Your task to perform on an android device: turn on priority inbox in the gmail app Image 0: 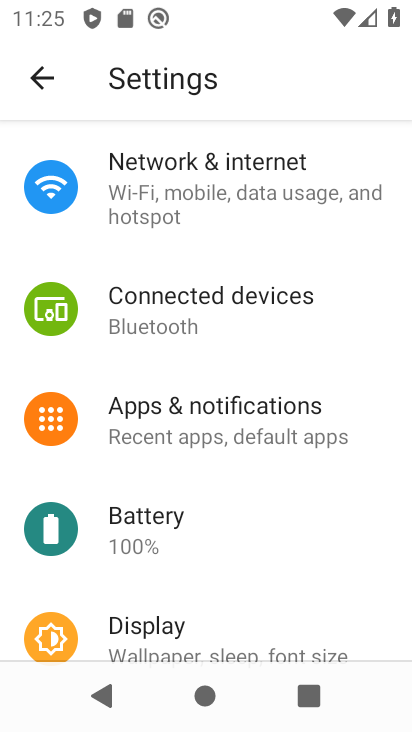
Step 0: press home button
Your task to perform on an android device: turn on priority inbox in the gmail app Image 1: 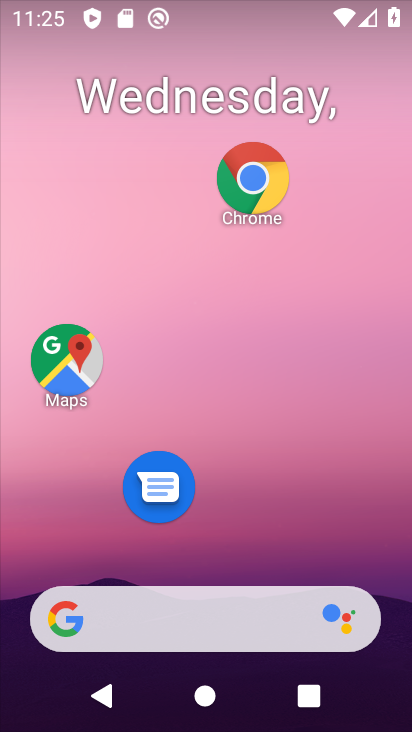
Step 1: drag from (303, 519) to (326, 155)
Your task to perform on an android device: turn on priority inbox in the gmail app Image 2: 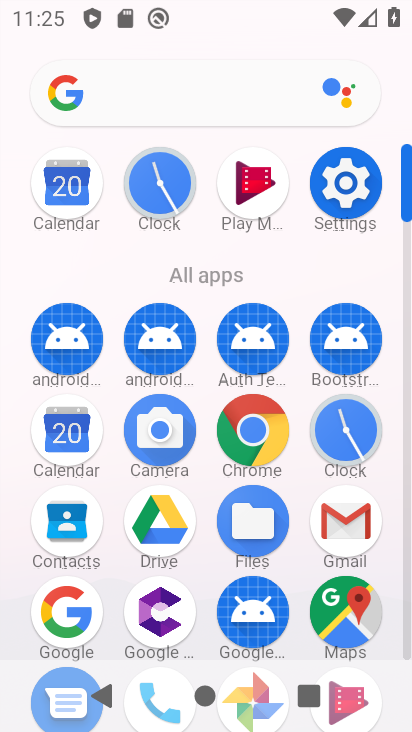
Step 2: click (353, 522)
Your task to perform on an android device: turn on priority inbox in the gmail app Image 3: 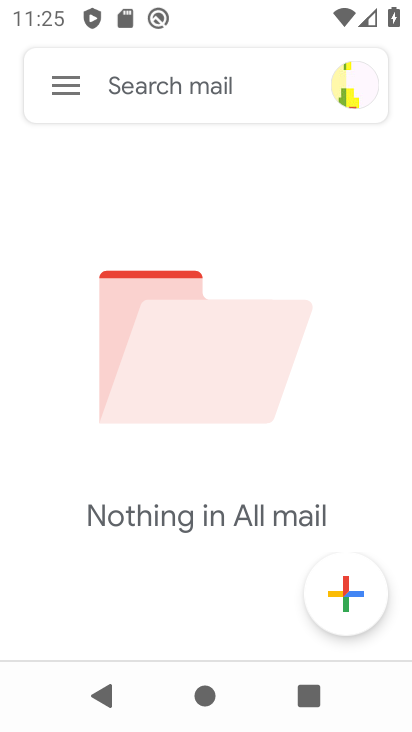
Step 3: click (66, 93)
Your task to perform on an android device: turn on priority inbox in the gmail app Image 4: 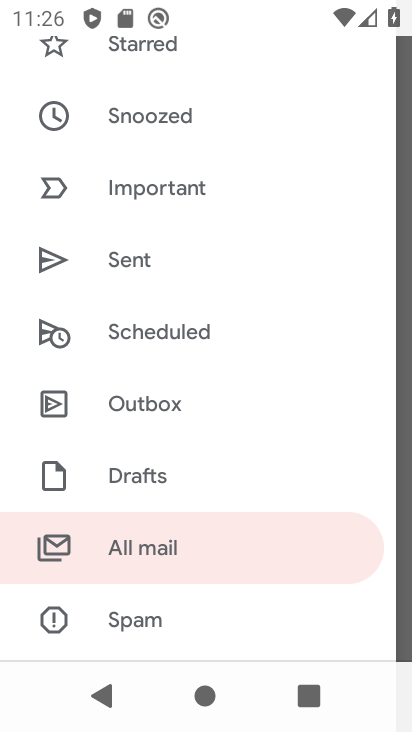
Step 4: drag from (219, 577) to (209, 297)
Your task to perform on an android device: turn on priority inbox in the gmail app Image 5: 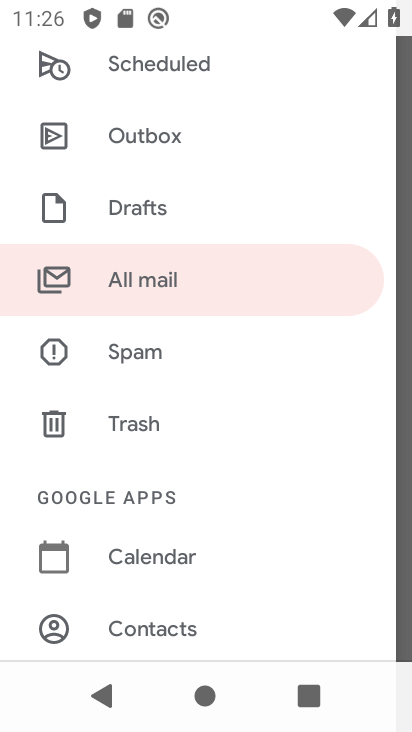
Step 5: drag from (224, 604) to (218, 225)
Your task to perform on an android device: turn on priority inbox in the gmail app Image 6: 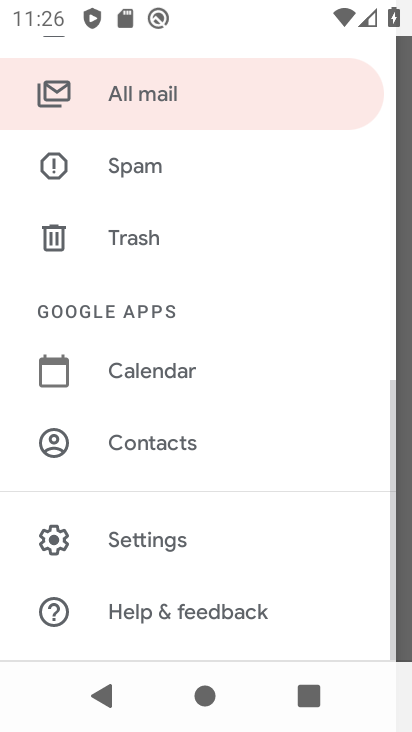
Step 6: click (164, 552)
Your task to perform on an android device: turn on priority inbox in the gmail app Image 7: 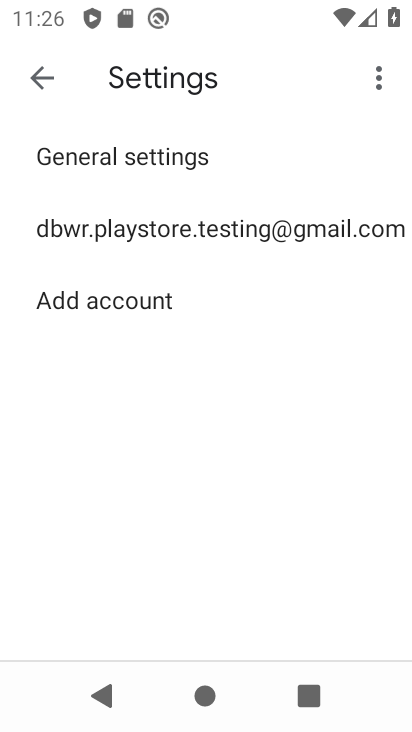
Step 7: click (187, 230)
Your task to perform on an android device: turn on priority inbox in the gmail app Image 8: 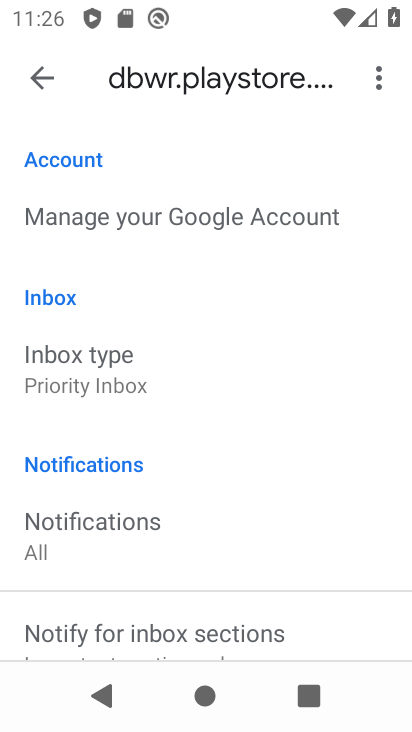
Step 8: task complete